Your task to perform on an android device: find which apps use the phone's location Image 0: 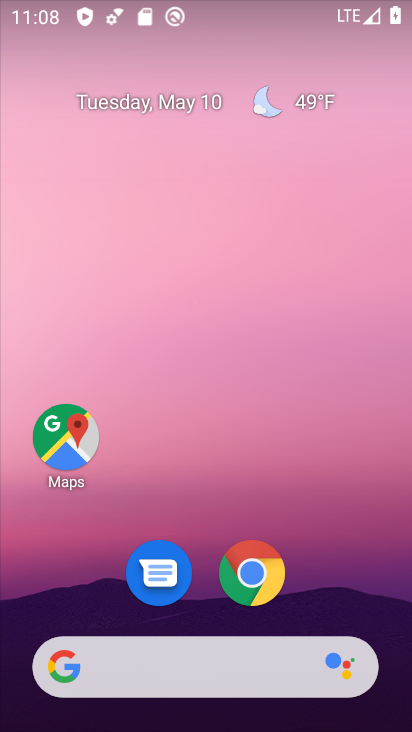
Step 0: drag from (180, 672) to (278, 289)
Your task to perform on an android device: find which apps use the phone's location Image 1: 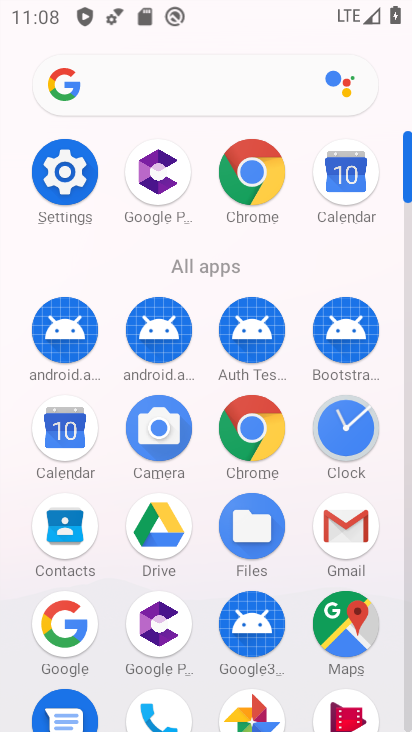
Step 1: click (73, 172)
Your task to perform on an android device: find which apps use the phone's location Image 2: 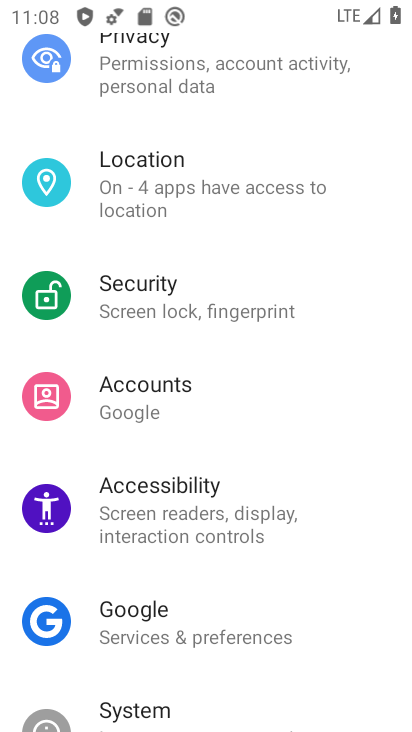
Step 2: click (158, 180)
Your task to perform on an android device: find which apps use the phone's location Image 3: 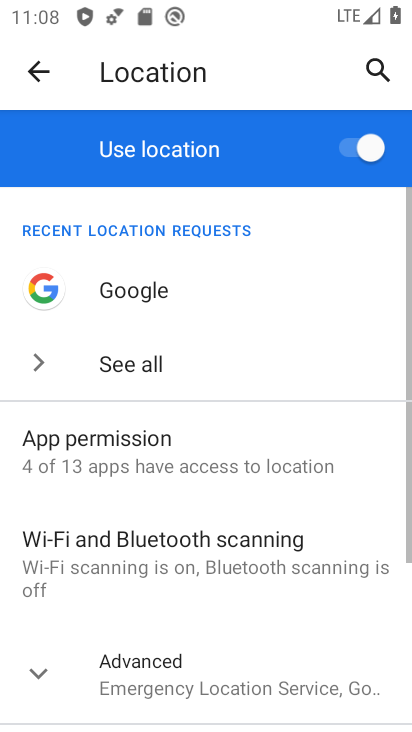
Step 3: click (116, 433)
Your task to perform on an android device: find which apps use the phone's location Image 4: 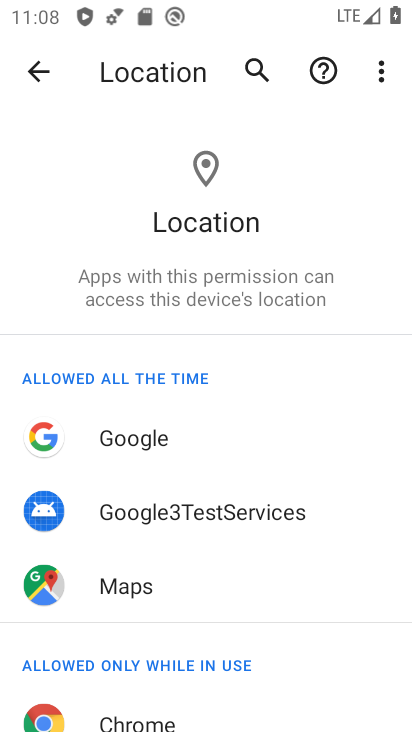
Step 4: drag from (198, 602) to (334, 154)
Your task to perform on an android device: find which apps use the phone's location Image 5: 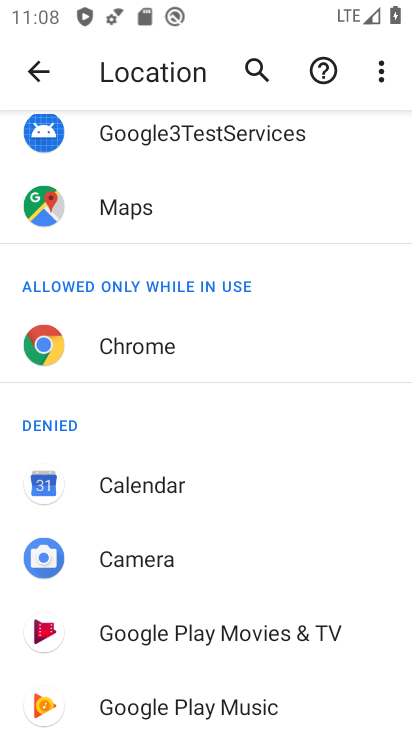
Step 5: drag from (268, 595) to (347, 156)
Your task to perform on an android device: find which apps use the phone's location Image 6: 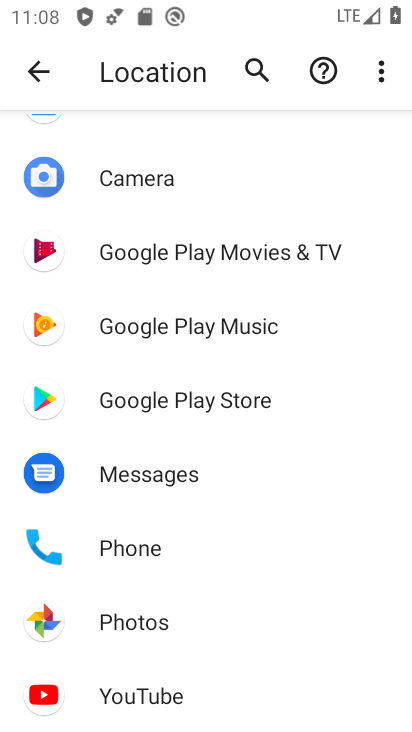
Step 6: click (144, 553)
Your task to perform on an android device: find which apps use the phone's location Image 7: 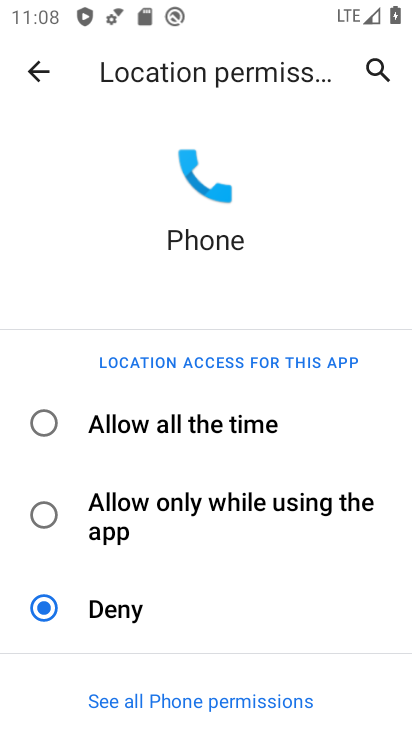
Step 7: task complete